Your task to perform on an android device: find which apps use the phone's location Image 0: 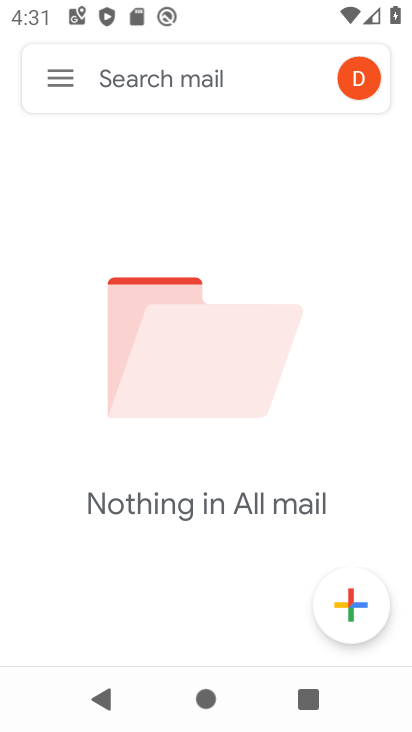
Step 0: press home button
Your task to perform on an android device: find which apps use the phone's location Image 1: 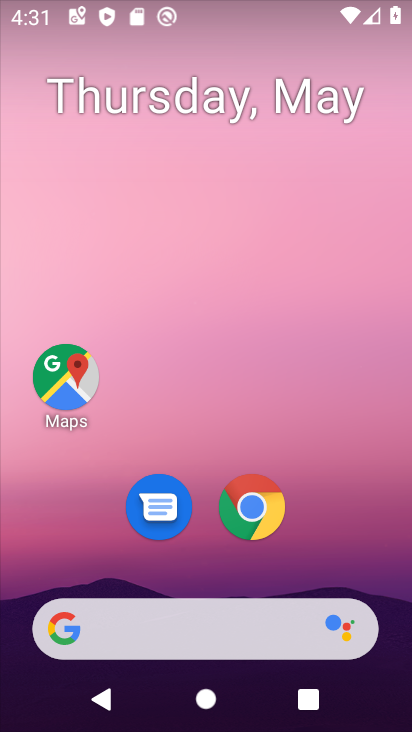
Step 1: drag from (222, 504) to (238, 65)
Your task to perform on an android device: find which apps use the phone's location Image 2: 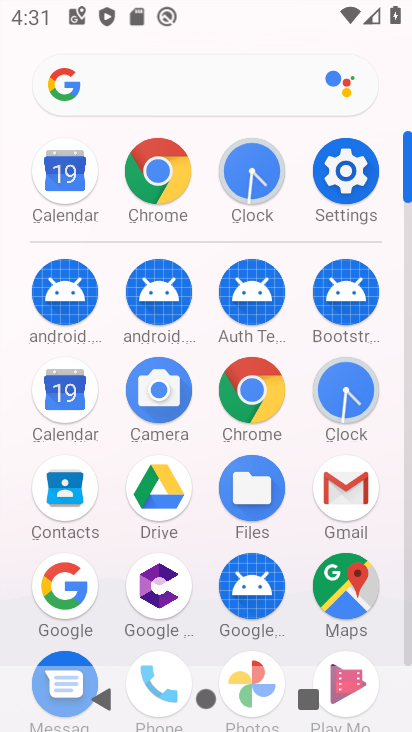
Step 2: click (342, 171)
Your task to perform on an android device: find which apps use the phone's location Image 3: 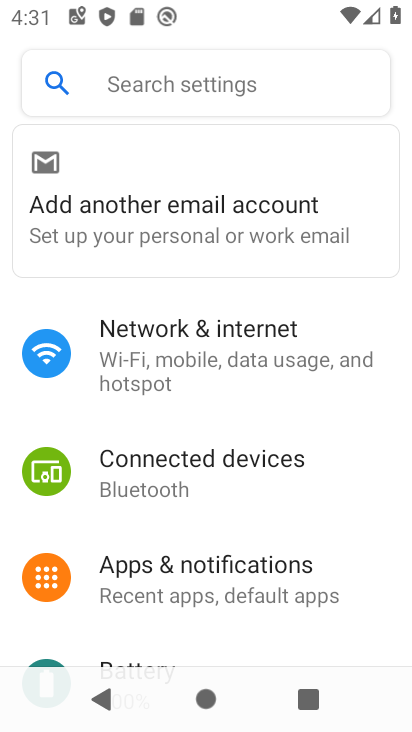
Step 3: drag from (169, 591) to (168, 329)
Your task to perform on an android device: find which apps use the phone's location Image 4: 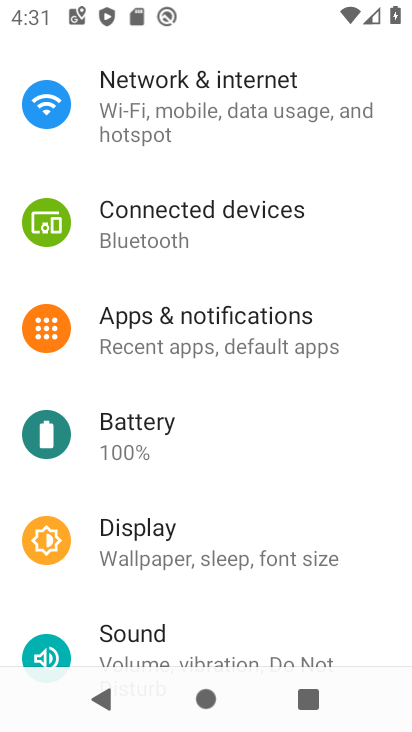
Step 4: drag from (162, 586) to (179, 337)
Your task to perform on an android device: find which apps use the phone's location Image 5: 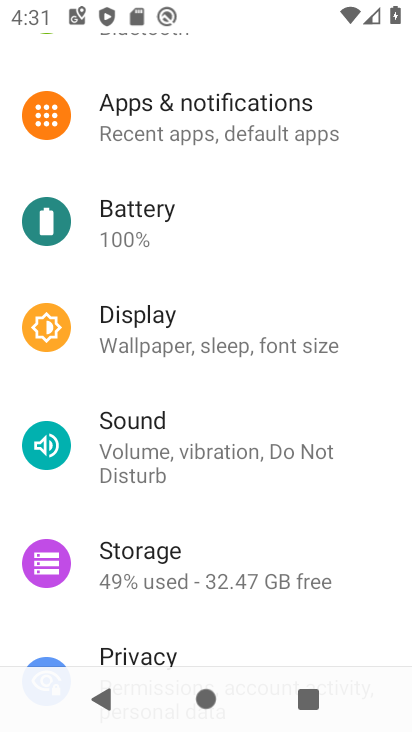
Step 5: drag from (146, 631) to (156, 352)
Your task to perform on an android device: find which apps use the phone's location Image 6: 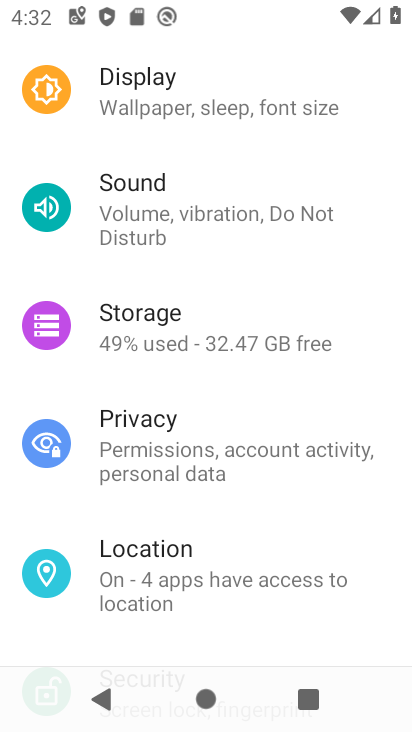
Step 6: click (120, 554)
Your task to perform on an android device: find which apps use the phone's location Image 7: 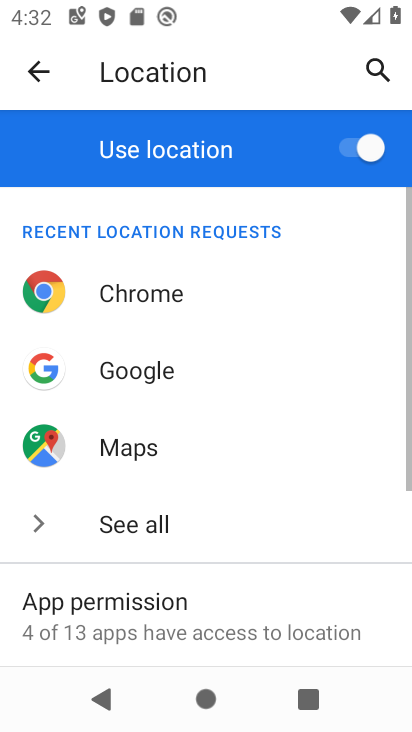
Step 7: click (104, 601)
Your task to perform on an android device: find which apps use the phone's location Image 8: 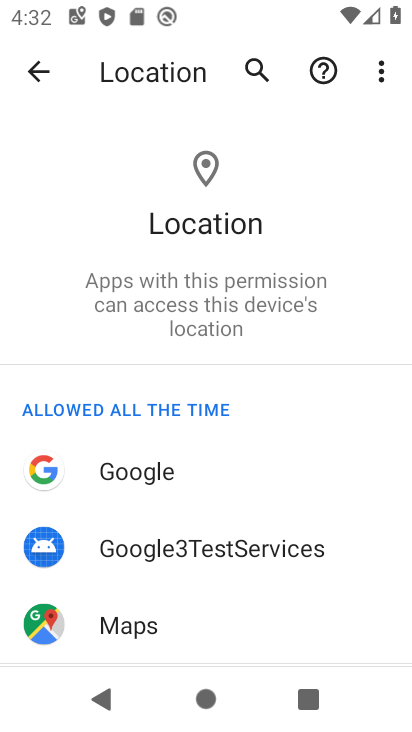
Step 8: task complete